Your task to perform on an android device: Open CNN.com Image 0: 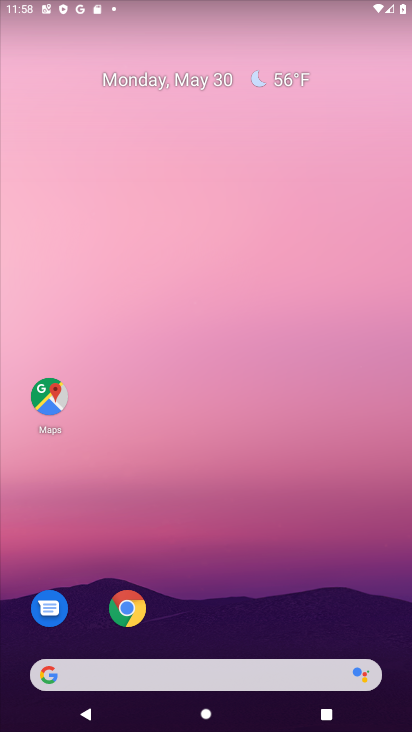
Step 0: drag from (204, 603) to (252, 64)
Your task to perform on an android device: Open CNN.com Image 1: 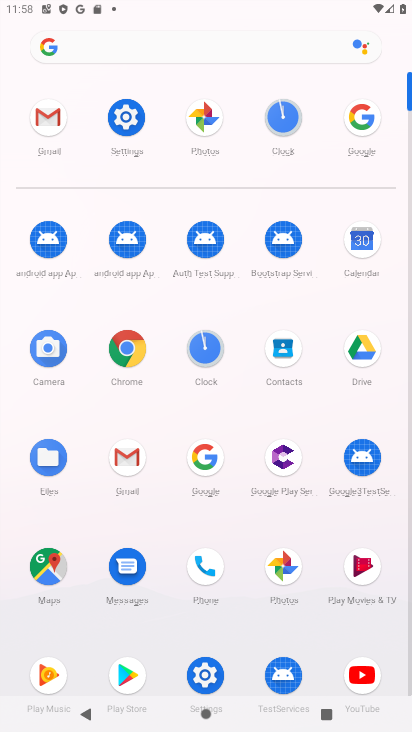
Step 1: click (214, 454)
Your task to perform on an android device: Open CNN.com Image 2: 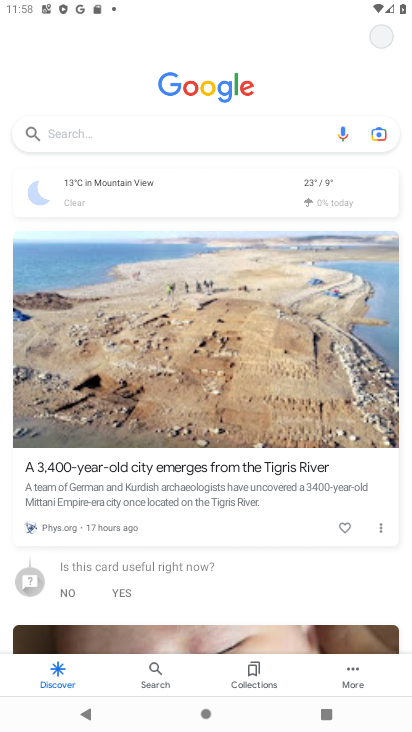
Step 2: click (170, 122)
Your task to perform on an android device: Open CNN.com Image 3: 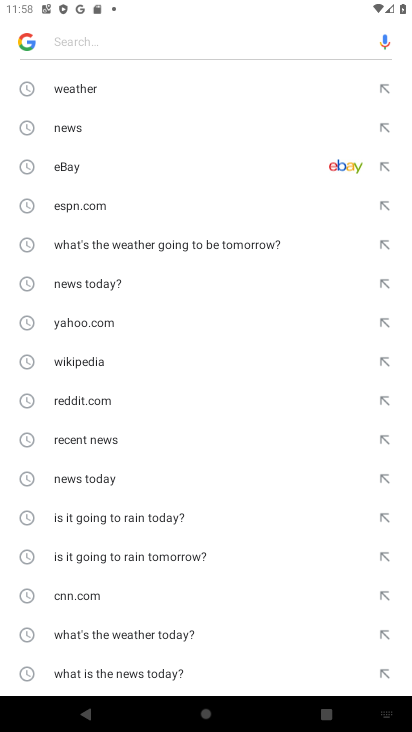
Step 3: click (98, 600)
Your task to perform on an android device: Open CNN.com Image 4: 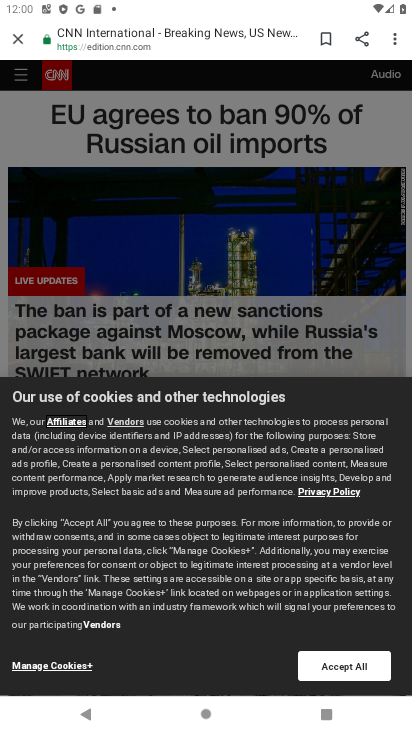
Step 4: task complete